Your task to perform on an android device: Go to ESPN.com Image 0: 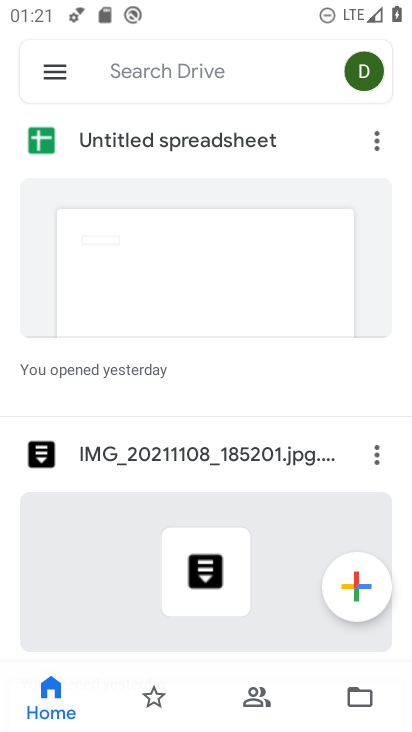
Step 0: press home button
Your task to perform on an android device: Go to ESPN.com Image 1: 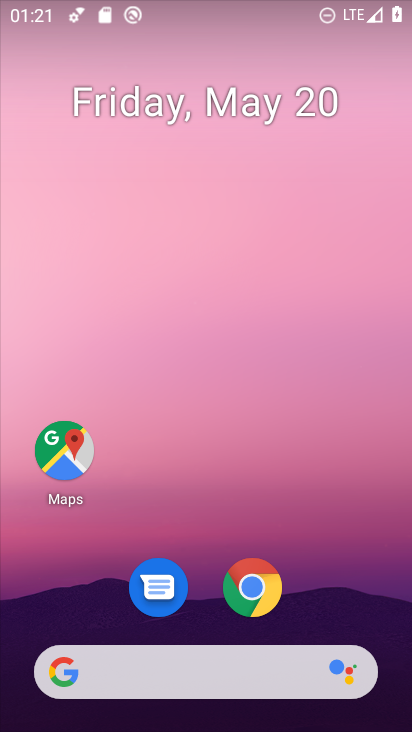
Step 1: drag from (339, 595) to (312, 48)
Your task to perform on an android device: Go to ESPN.com Image 2: 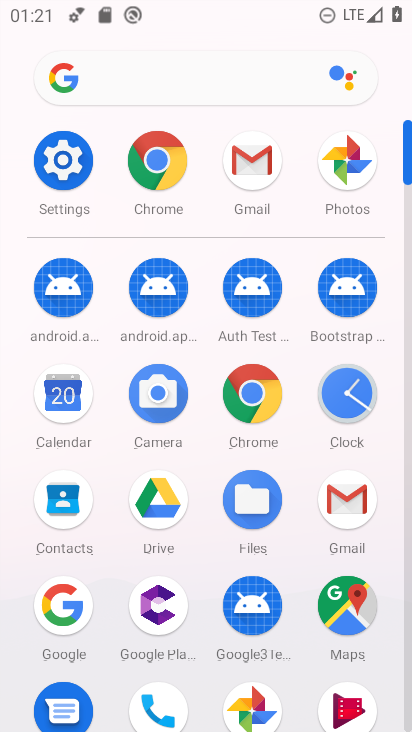
Step 2: click (265, 414)
Your task to perform on an android device: Go to ESPN.com Image 3: 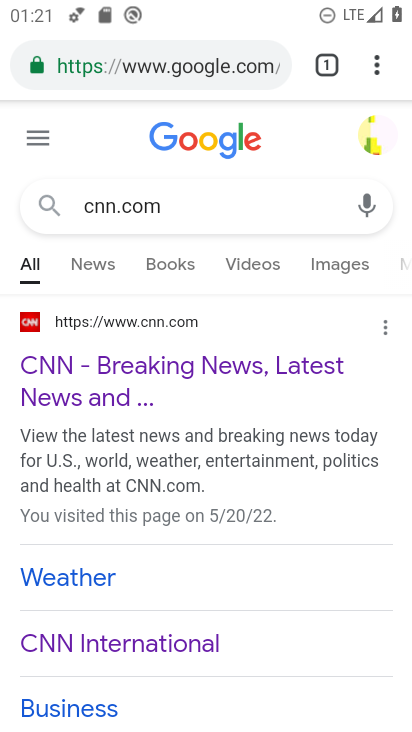
Step 3: click (249, 75)
Your task to perform on an android device: Go to ESPN.com Image 4: 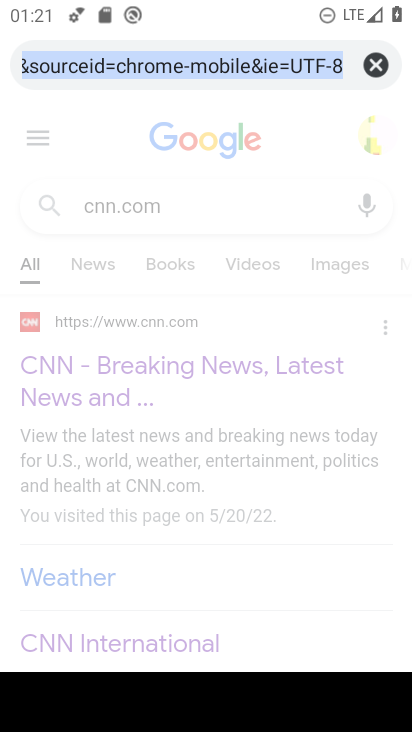
Step 4: click (372, 65)
Your task to perform on an android device: Go to ESPN.com Image 5: 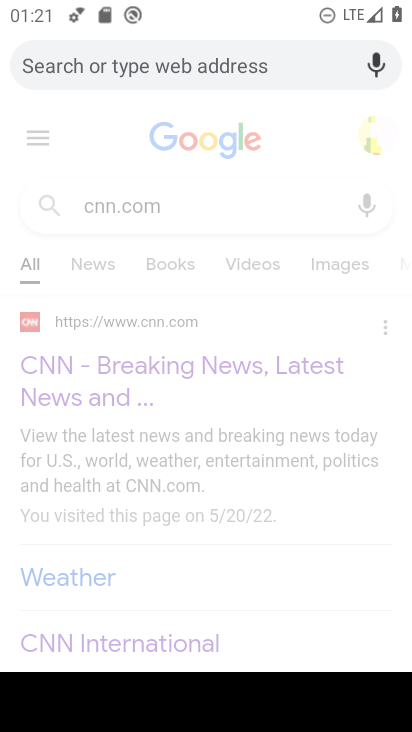
Step 5: click (234, 71)
Your task to perform on an android device: Go to ESPN.com Image 6: 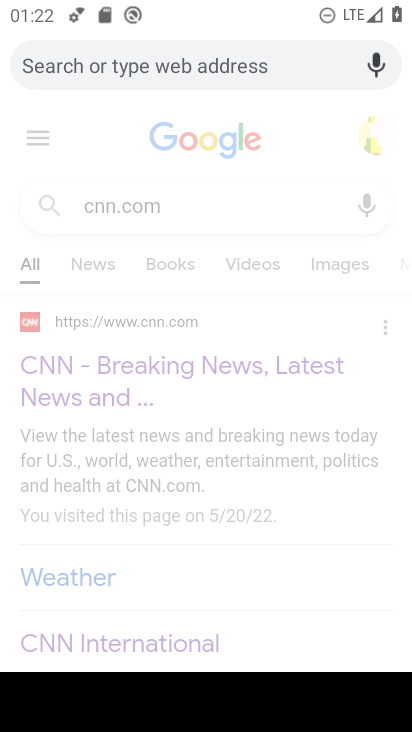
Step 6: type "espn.com"
Your task to perform on an android device: Go to ESPN.com Image 7: 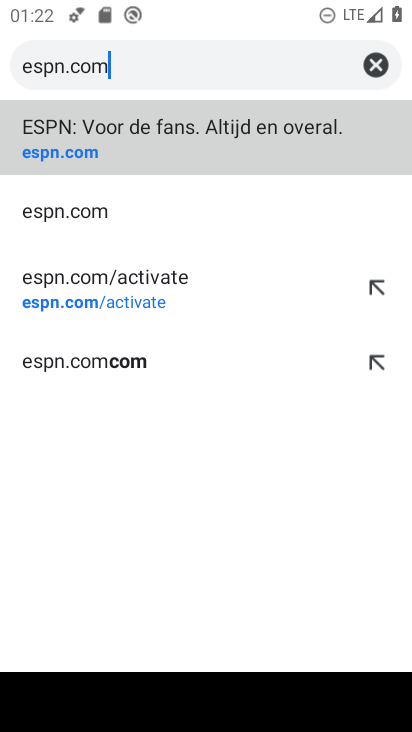
Step 7: click (136, 224)
Your task to perform on an android device: Go to ESPN.com Image 8: 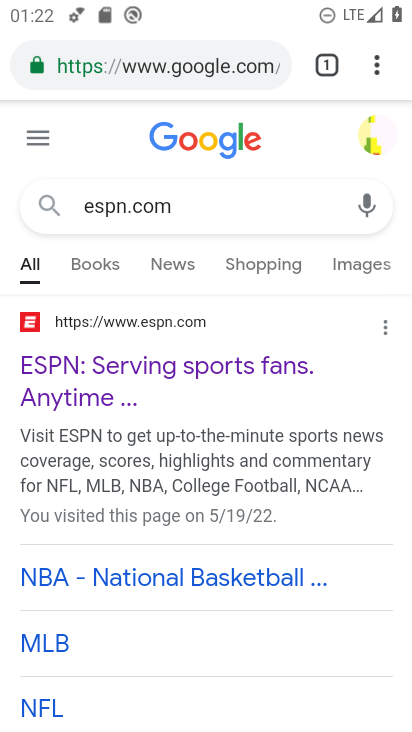
Step 8: task complete